Your task to perform on an android device: toggle pop-ups in chrome Image 0: 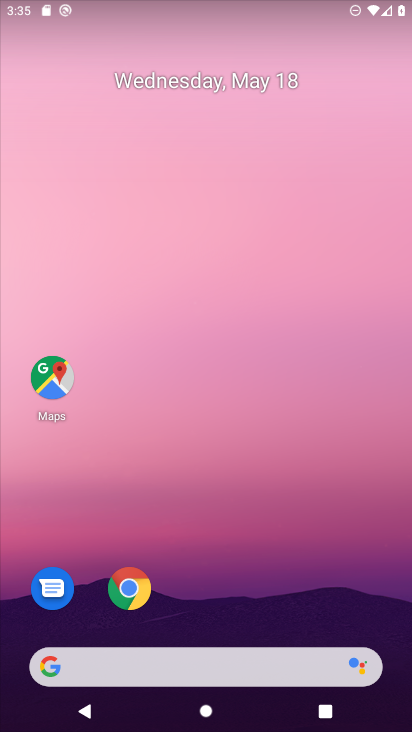
Step 0: click (141, 587)
Your task to perform on an android device: toggle pop-ups in chrome Image 1: 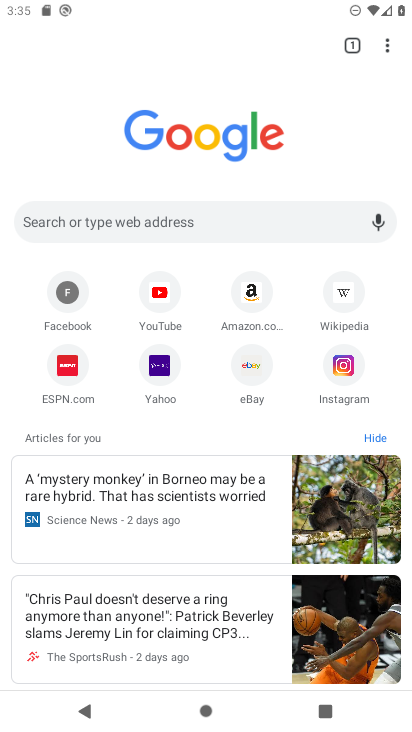
Step 1: click (389, 58)
Your task to perform on an android device: toggle pop-ups in chrome Image 2: 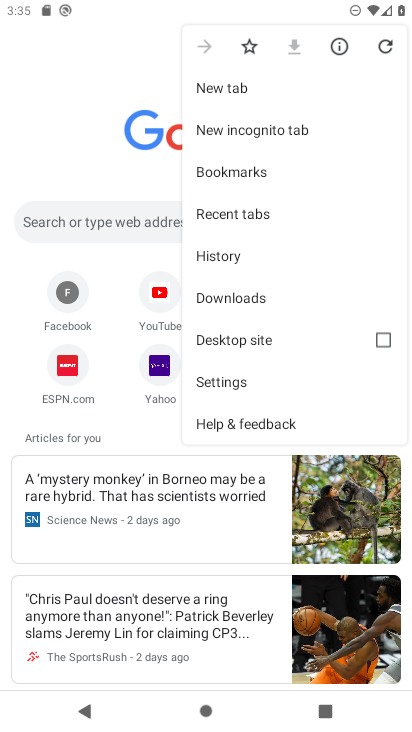
Step 2: click (255, 377)
Your task to perform on an android device: toggle pop-ups in chrome Image 3: 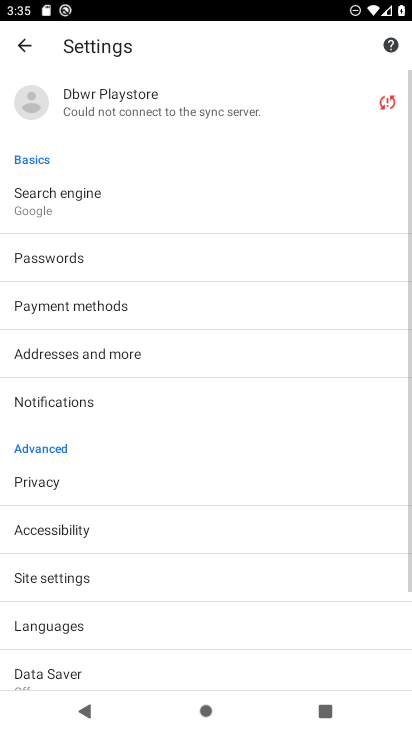
Step 3: drag from (218, 567) to (259, 263)
Your task to perform on an android device: toggle pop-ups in chrome Image 4: 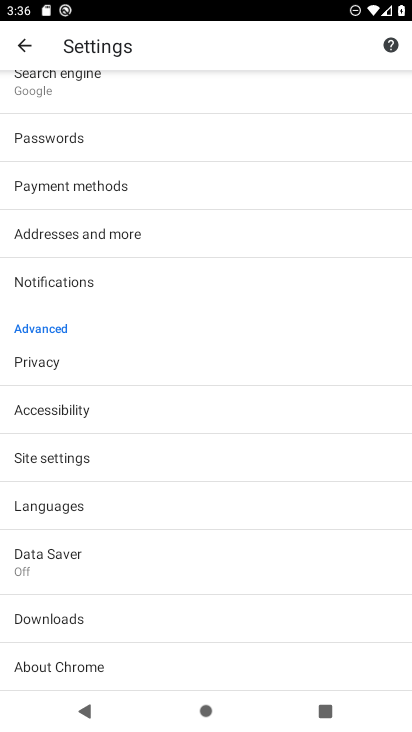
Step 4: click (185, 461)
Your task to perform on an android device: toggle pop-ups in chrome Image 5: 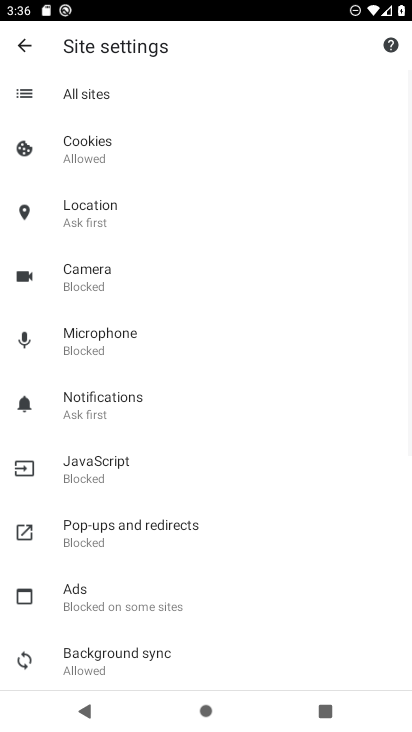
Step 5: drag from (190, 598) to (211, 312)
Your task to perform on an android device: toggle pop-ups in chrome Image 6: 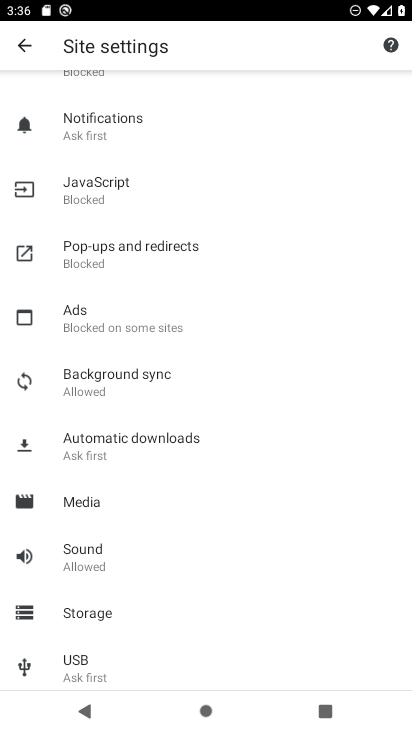
Step 6: click (211, 235)
Your task to perform on an android device: toggle pop-ups in chrome Image 7: 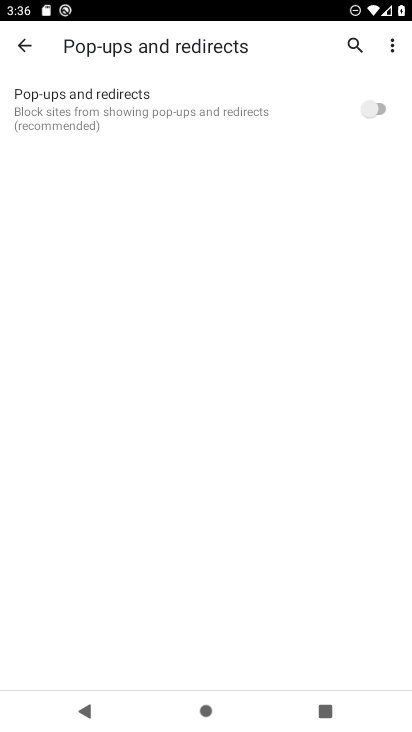
Step 7: click (376, 88)
Your task to perform on an android device: toggle pop-ups in chrome Image 8: 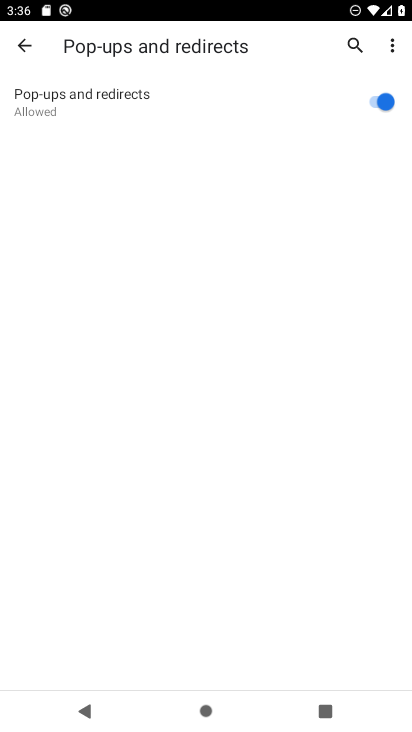
Step 8: task complete